Your task to perform on an android device: Go to CNN.com Image 0: 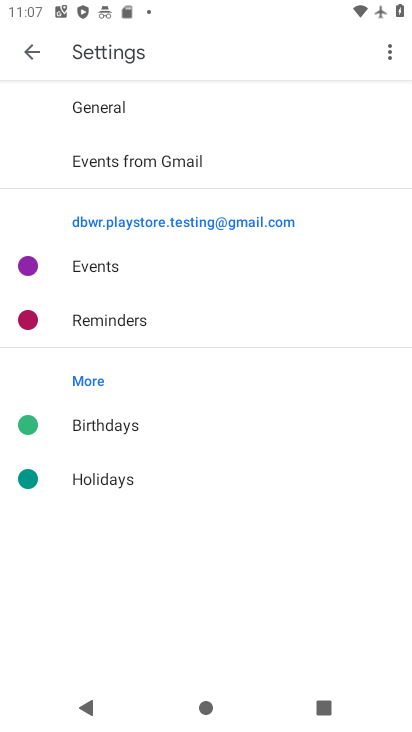
Step 0: press home button
Your task to perform on an android device: Go to CNN.com Image 1: 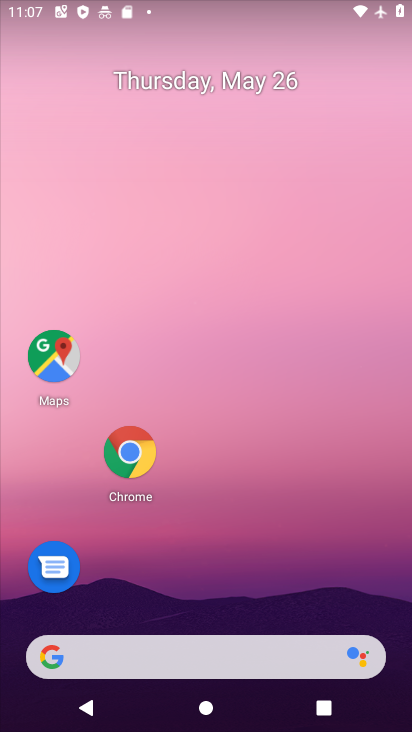
Step 1: click (130, 450)
Your task to perform on an android device: Go to CNN.com Image 2: 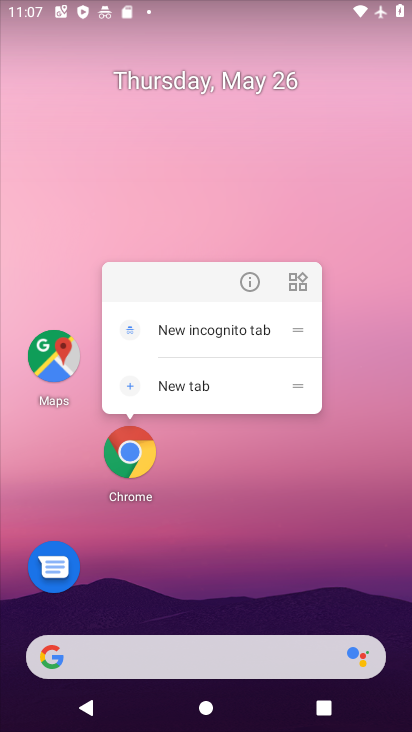
Step 2: click (135, 466)
Your task to perform on an android device: Go to CNN.com Image 3: 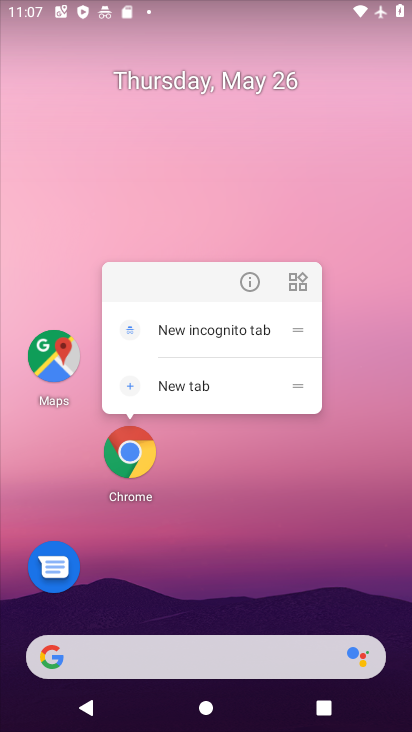
Step 3: click (136, 457)
Your task to perform on an android device: Go to CNN.com Image 4: 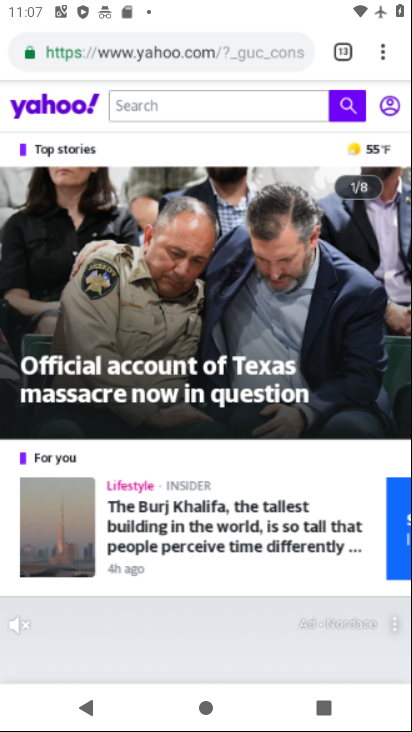
Step 4: drag from (382, 54) to (272, 111)
Your task to perform on an android device: Go to CNN.com Image 5: 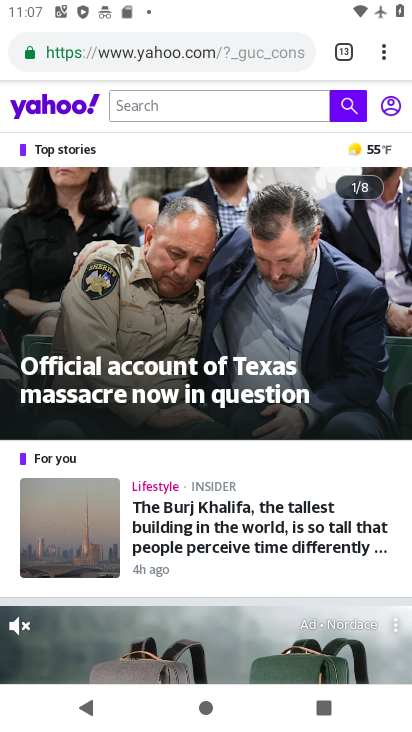
Step 5: click (382, 58)
Your task to perform on an android device: Go to CNN.com Image 6: 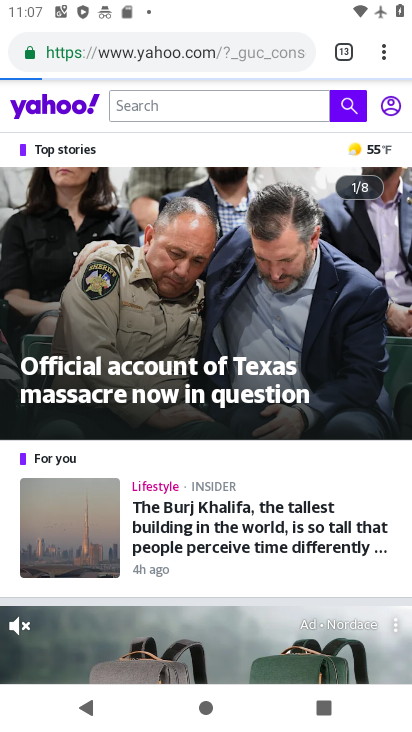
Step 6: drag from (383, 53) to (239, 108)
Your task to perform on an android device: Go to CNN.com Image 7: 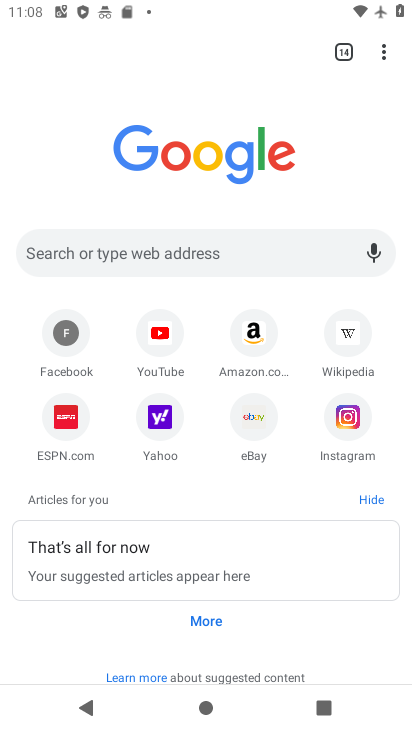
Step 7: click (145, 251)
Your task to perform on an android device: Go to CNN.com Image 8: 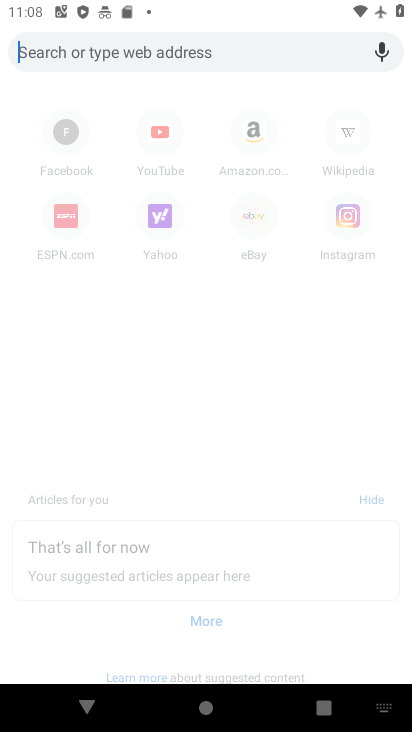
Step 8: type "cnn.com"
Your task to perform on an android device: Go to CNN.com Image 9: 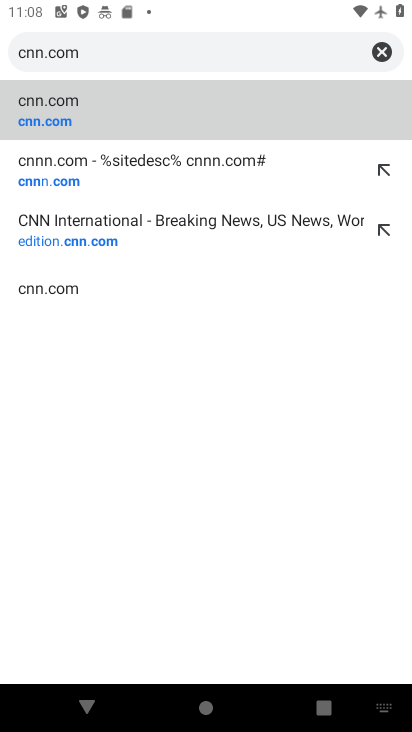
Step 9: click (67, 112)
Your task to perform on an android device: Go to CNN.com Image 10: 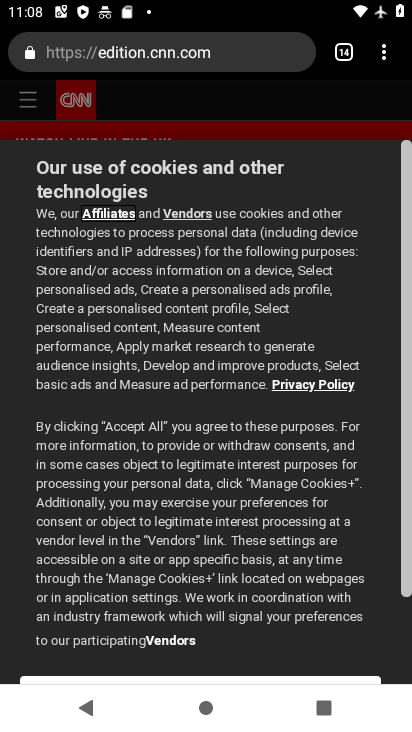
Step 10: drag from (255, 572) to (325, 264)
Your task to perform on an android device: Go to CNN.com Image 11: 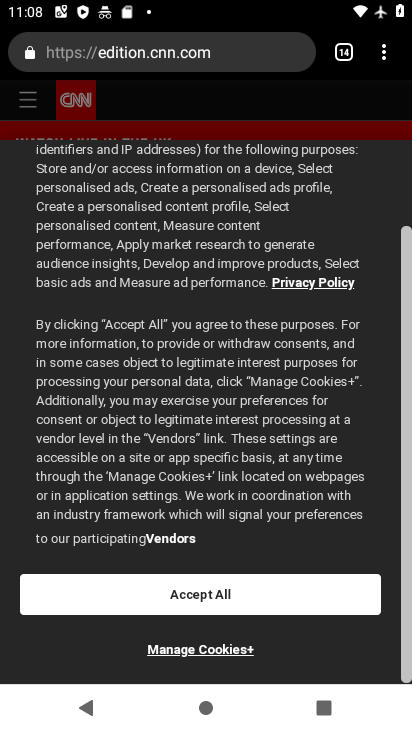
Step 11: click (221, 604)
Your task to perform on an android device: Go to CNN.com Image 12: 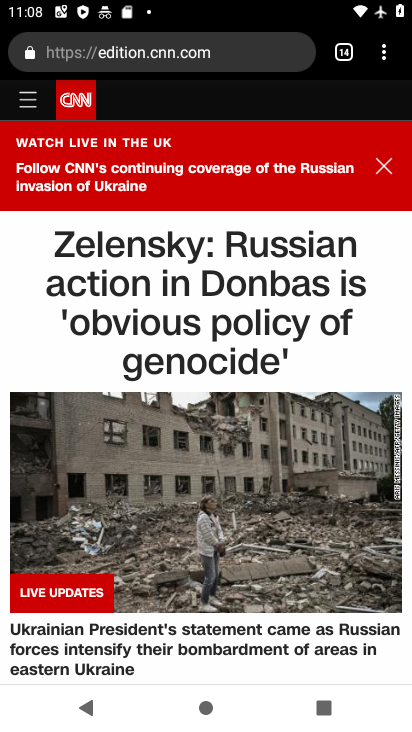
Step 12: task complete